Your task to perform on an android device: Open the stopwatch Image 0: 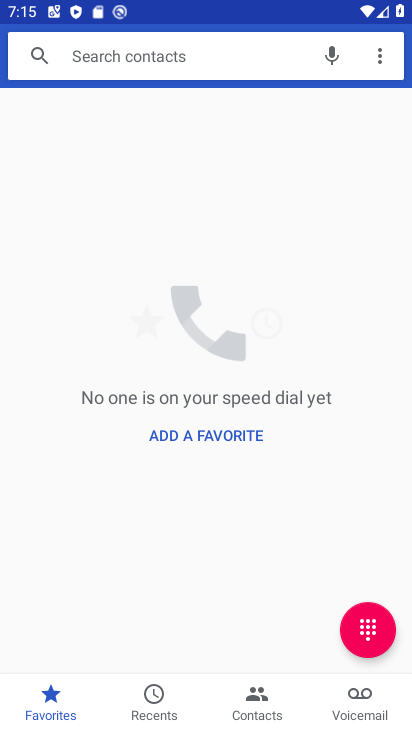
Step 0: press home button
Your task to perform on an android device: Open the stopwatch Image 1: 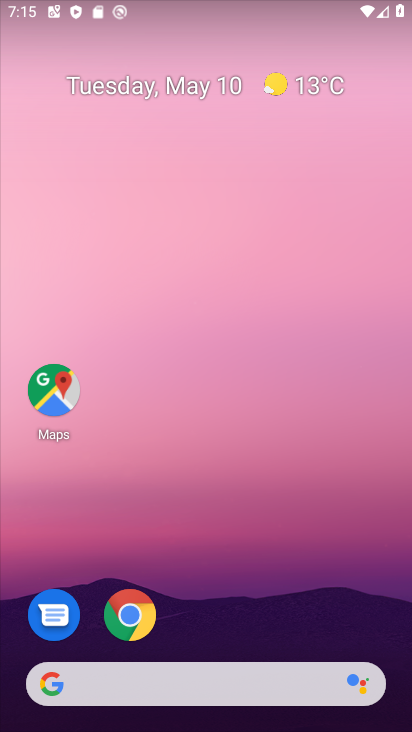
Step 1: drag from (288, 594) to (266, 177)
Your task to perform on an android device: Open the stopwatch Image 2: 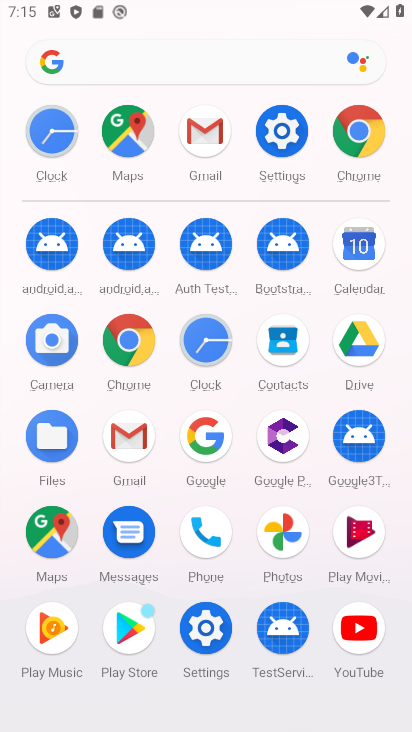
Step 2: click (211, 343)
Your task to perform on an android device: Open the stopwatch Image 3: 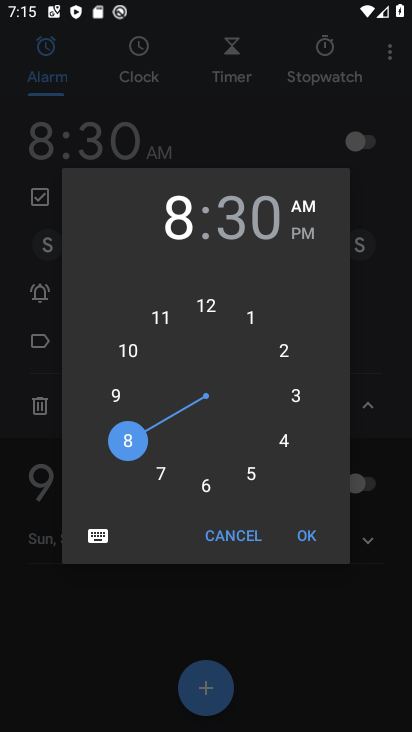
Step 3: press back button
Your task to perform on an android device: Open the stopwatch Image 4: 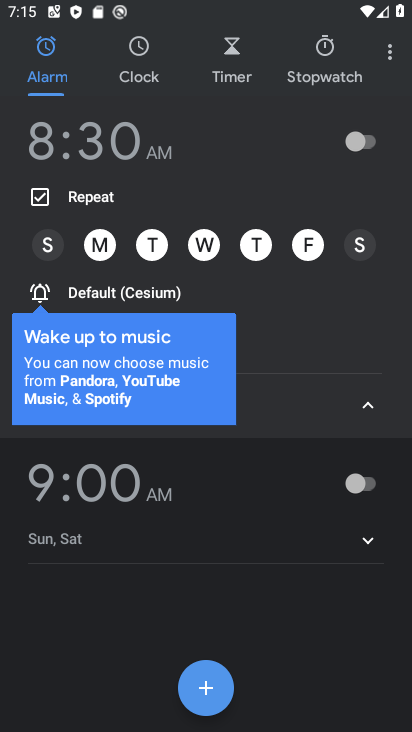
Step 4: click (317, 68)
Your task to perform on an android device: Open the stopwatch Image 5: 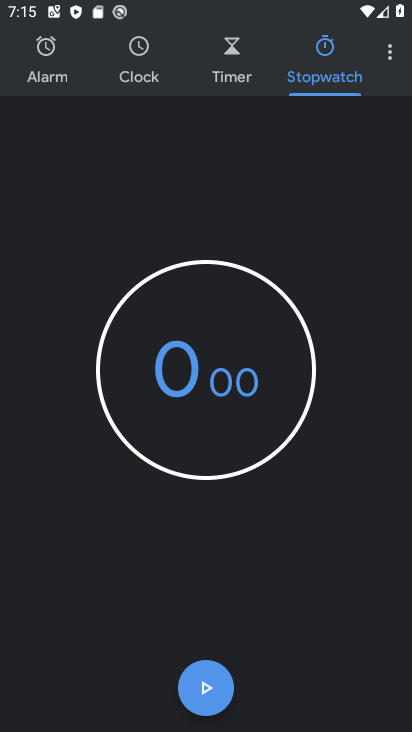
Step 5: task complete